Your task to perform on an android device: open the mobile data screen to see how much data has been used Image 0: 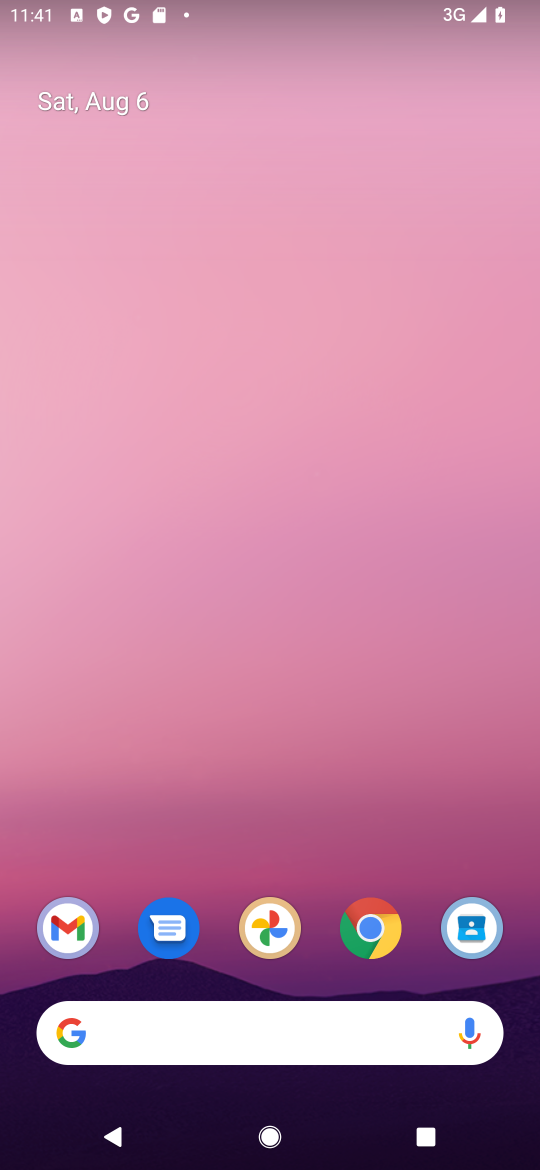
Step 0: drag from (237, 880) to (139, 251)
Your task to perform on an android device: open the mobile data screen to see how much data has been used Image 1: 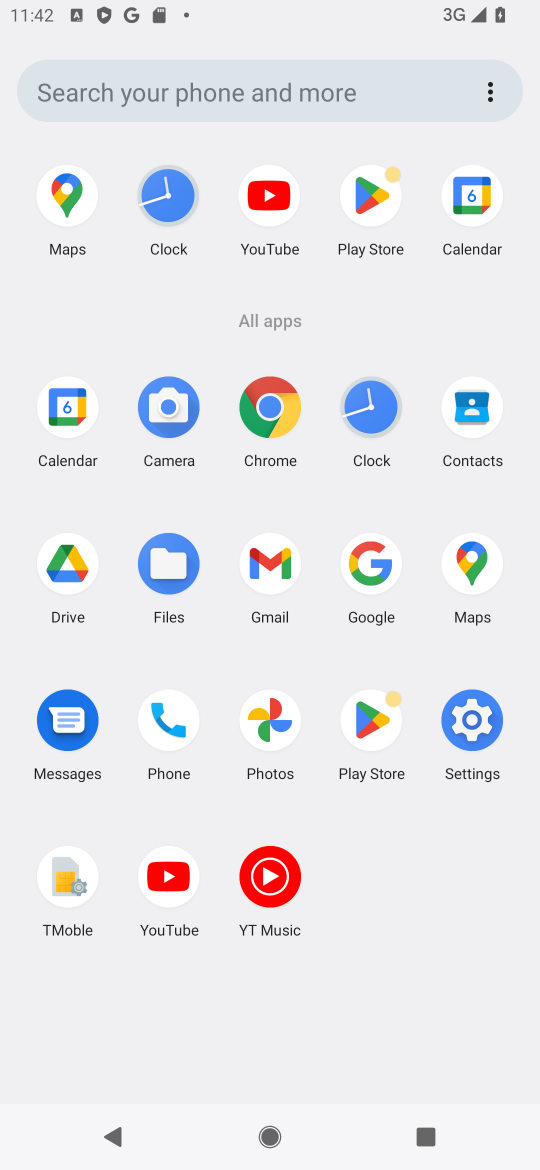
Step 1: click (474, 741)
Your task to perform on an android device: open the mobile data screen to see how much data has been used Image 2: 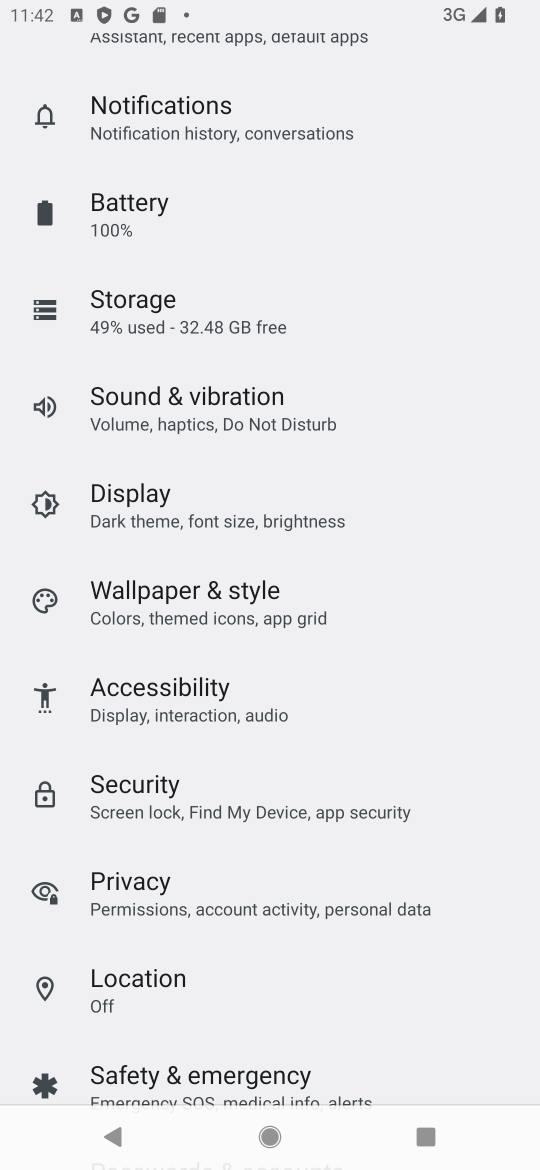
Step 2: drag from (394, 371) to (399, 800)
Your task to perform on an android device: open the mobile data screen to see how much data has been used Image 3: 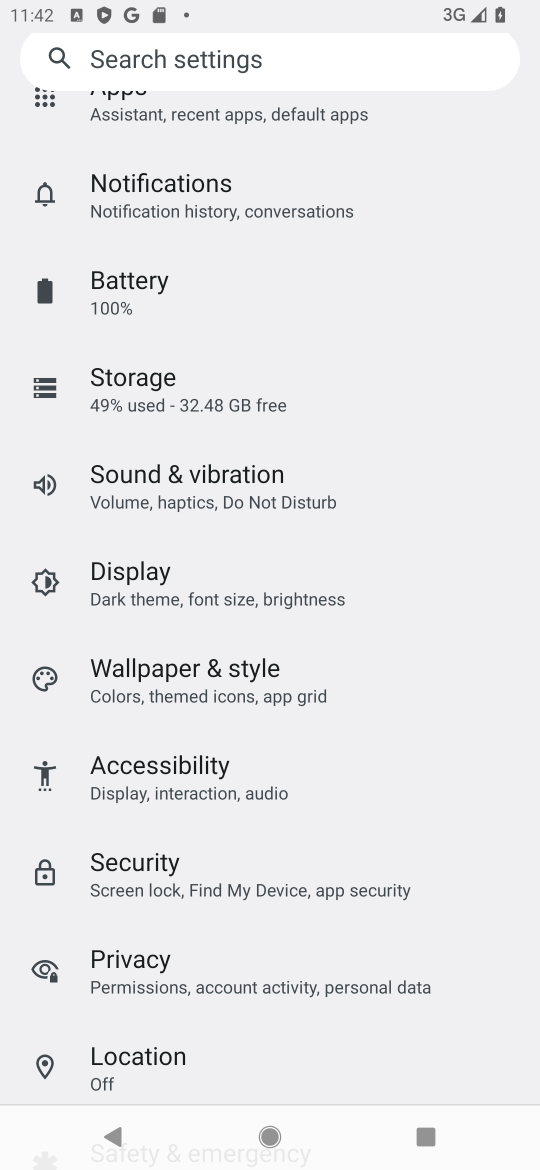
Step 3: drag from (431, 236) to (462, 659)
Your task to perform on an android device: open the mobile data screen to see how much data has been used Image 4: 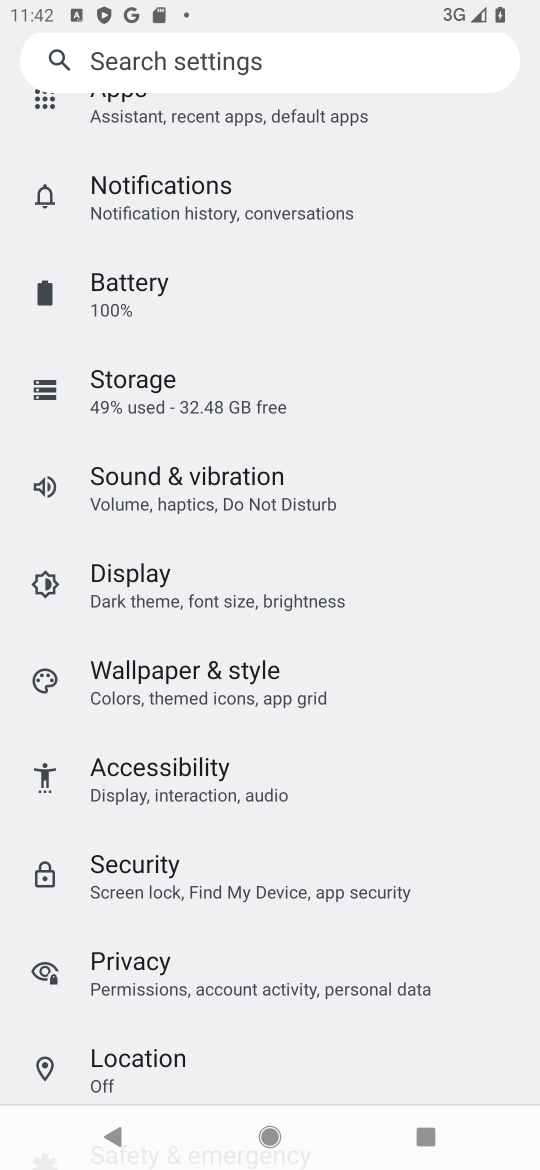
Step 4: drag from (432, 241) to (329, 911)
Your task to perform on an android device: open the mobile data screen to see how much data has been used Image 5: 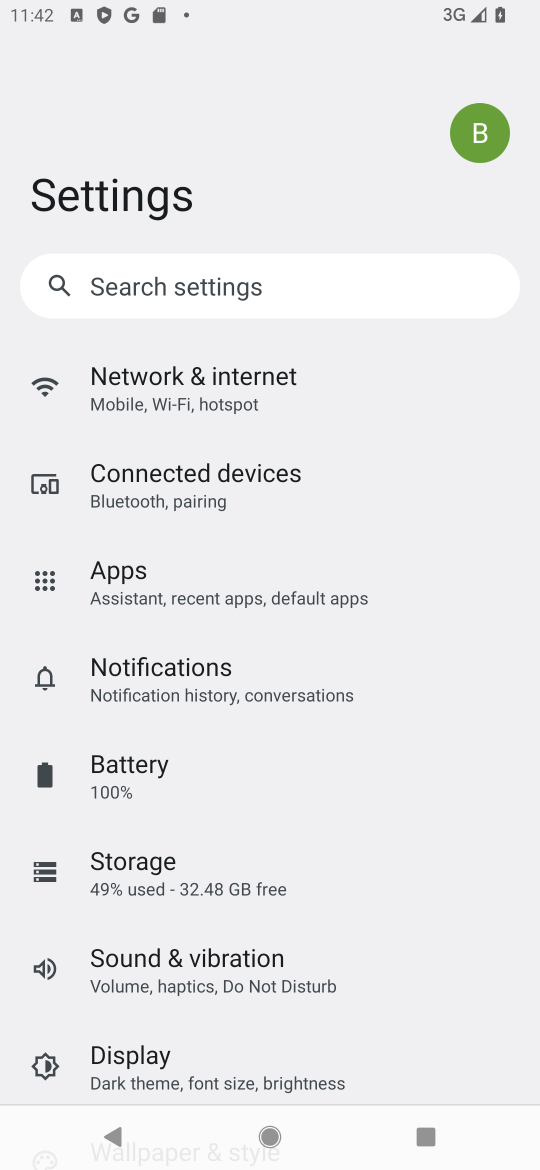
Step 5: click (188, 393)
Your task to perform on an android device: open the mobile data screen to see how much data has been used Image 6: 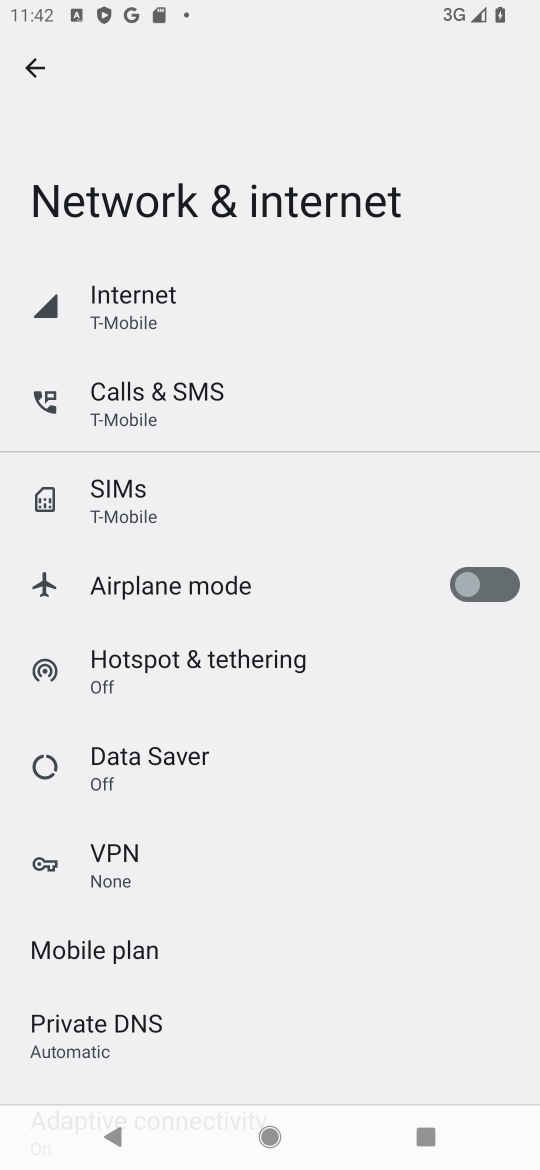
Step 6: click (134, 310)
Your task to perform on an android device: open the mobile data screen to see how much data has been used Image 7: 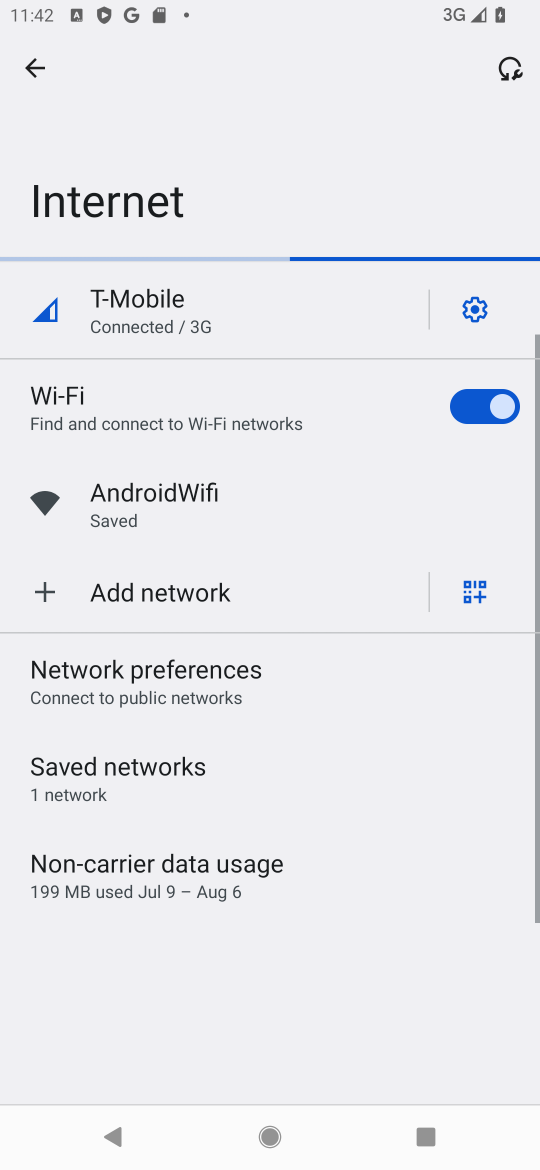
Step 7: click (134, 310)
Your task to perform on an android device: open the mobile data screen to see how much data has been used Image 8: 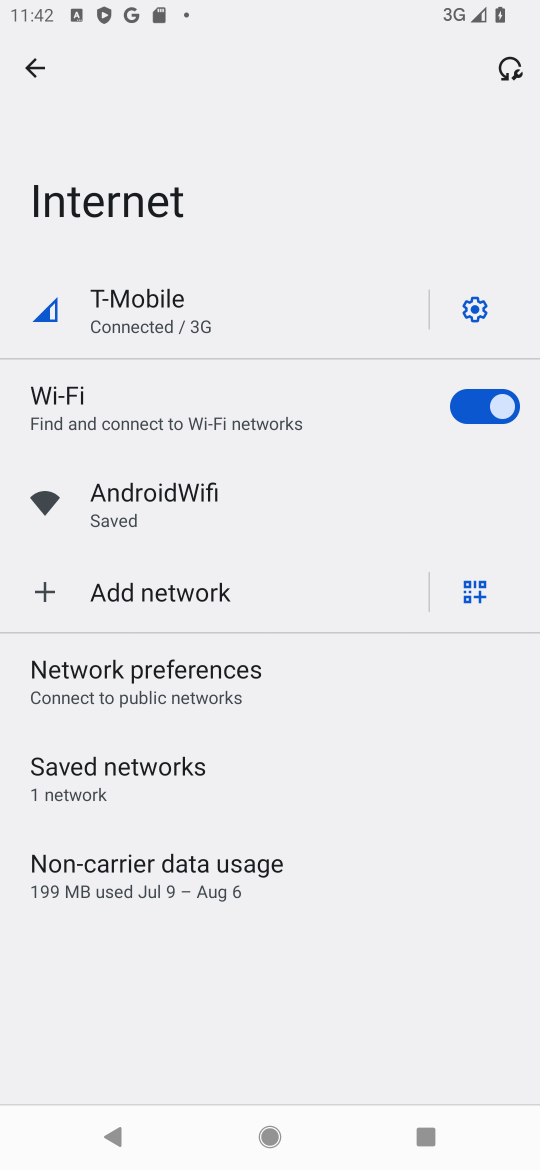
Step 8: click (288, 312)
Your task to perform on an android device: open the mobile data screen to see how much data has been used Image 9: 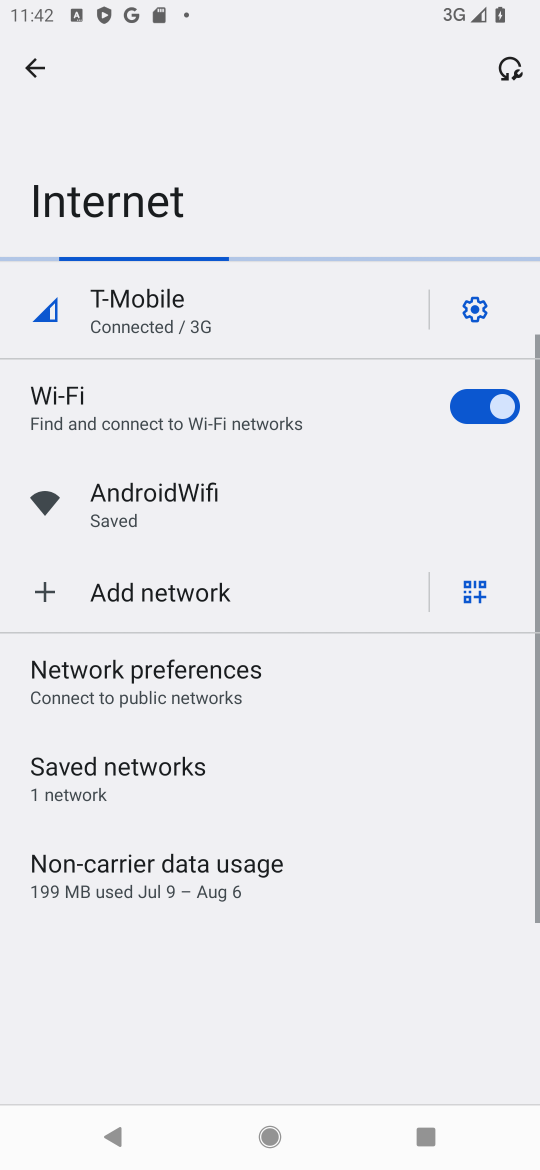
Step 9: click (476, 315)
Your task to perform on an android device: open the mobile data screen to see how much data has been used Image 10: 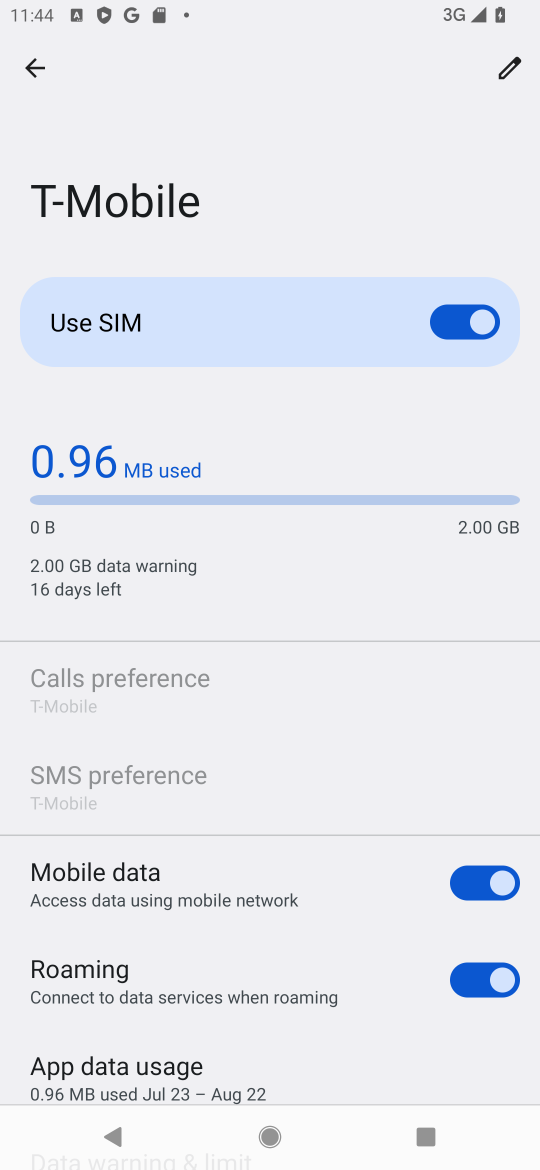
Step 10: task complete